Your task to perform on an android device: Show me recent news Image 0: 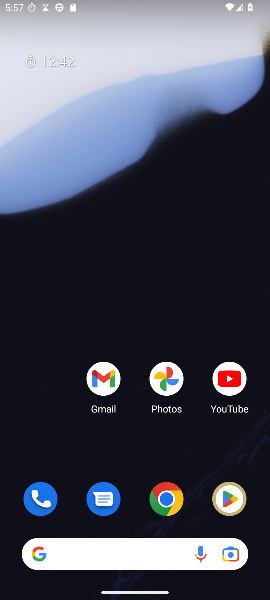
Step 0: drag from (120, 566) to (193, 60)
Your task to perform on an android device: Show me recent news Image 1: 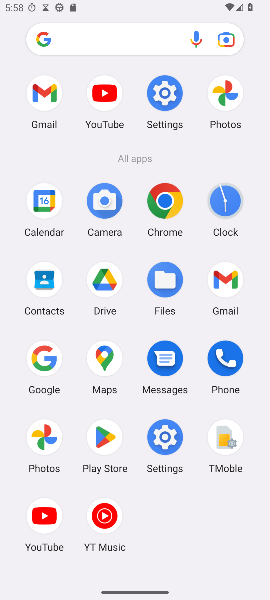
Step 1: click (162, 212)
Your task to perform on an android device: Show me recent news Image 2: 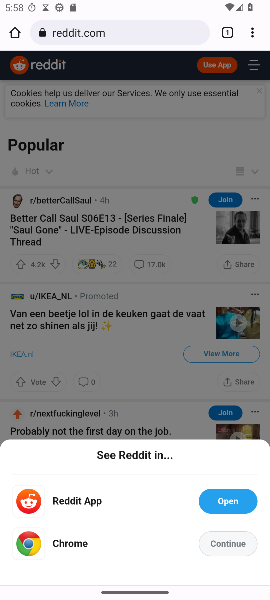
Step 2: task complete